Your task to perform on an android device: delete a single message in the gmail app Image 0: 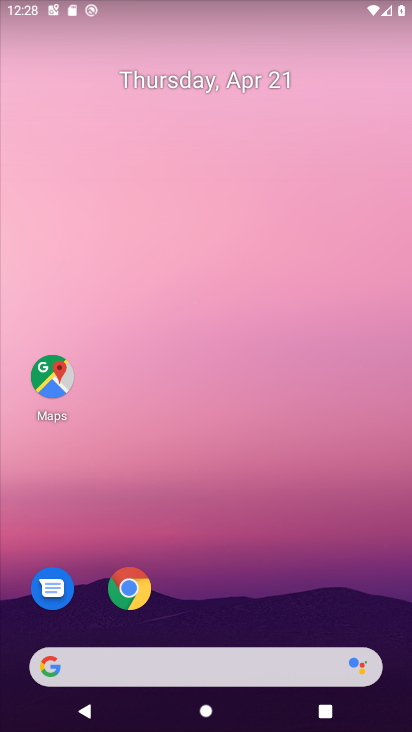
Step 0: drag from (204, 619) to (232, 63)
Your task to perform on an android device: delete a single message in the gmail app Image 1: 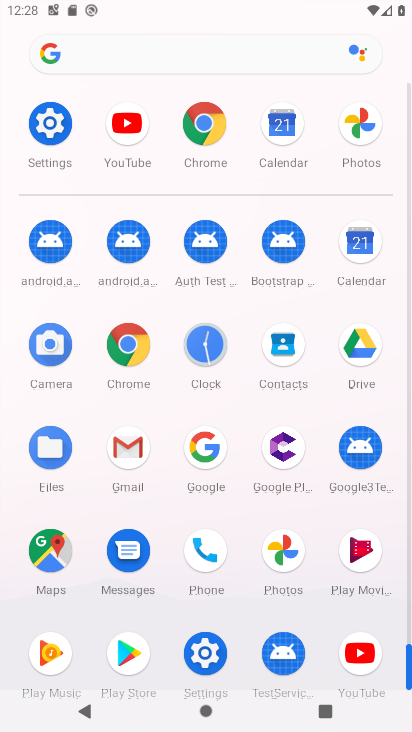
Step 1: drag from (239, 623) to (271, 108)
Your task to perform on an android device: delete a single message in the gmail app Image 2: 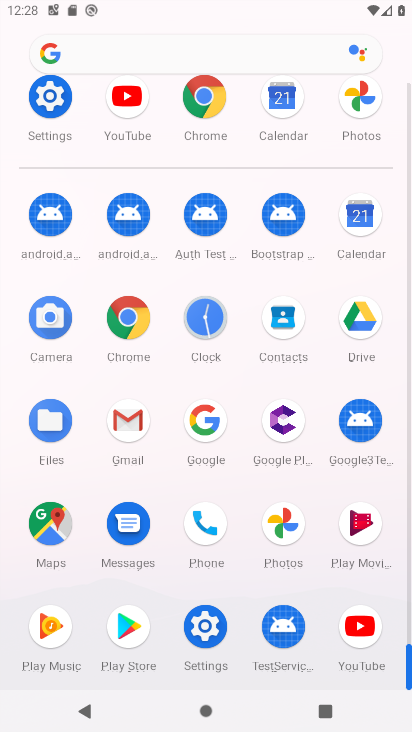
Step 2: click (121, 412)
Your task to perform on an android device: delete a single message in the gmail app Image 3: 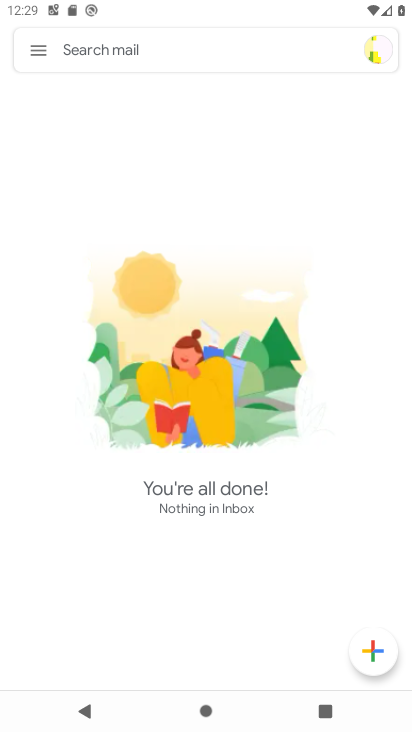
Step 3: click (37, 49)
Your task to perform on an android device: delete a single message in the gmail app Image 4: 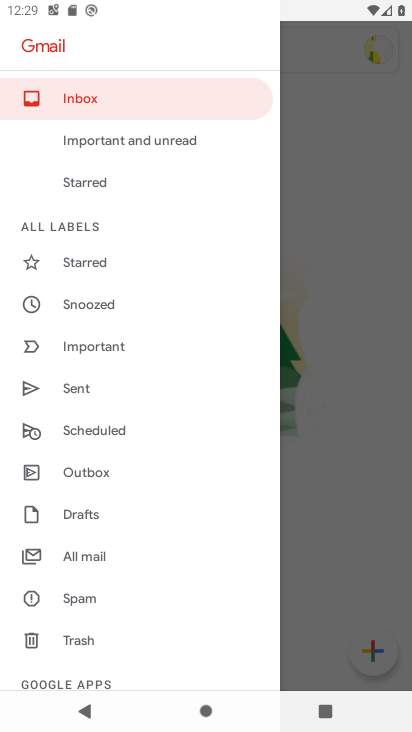
Step 4: click (118, 550)
Your task to perform on an android device: delete a single message in the gmail app Image 5: 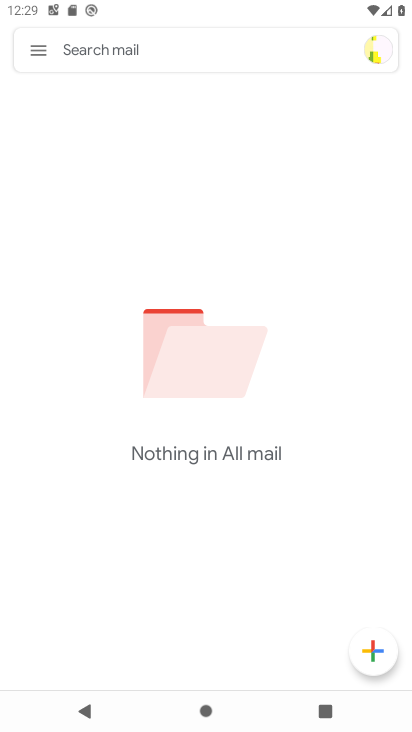
Step 5: task complete